Your task to perform on an android device: Open display settings Image 0: 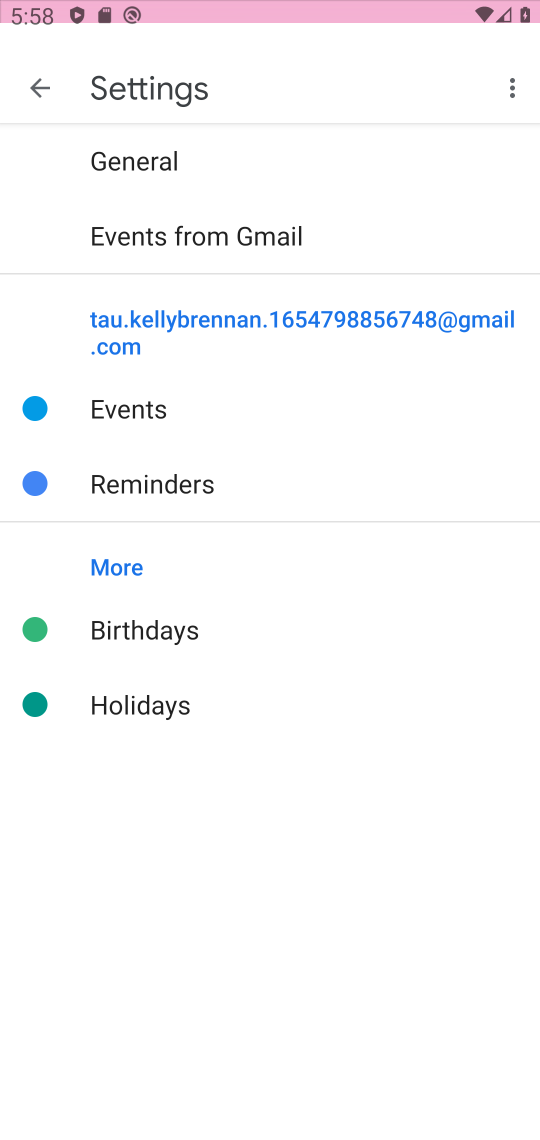
Step 0: drag from (292, 155) to (159, 111)
Your task to perform on an android device: Open display settings Image 1: 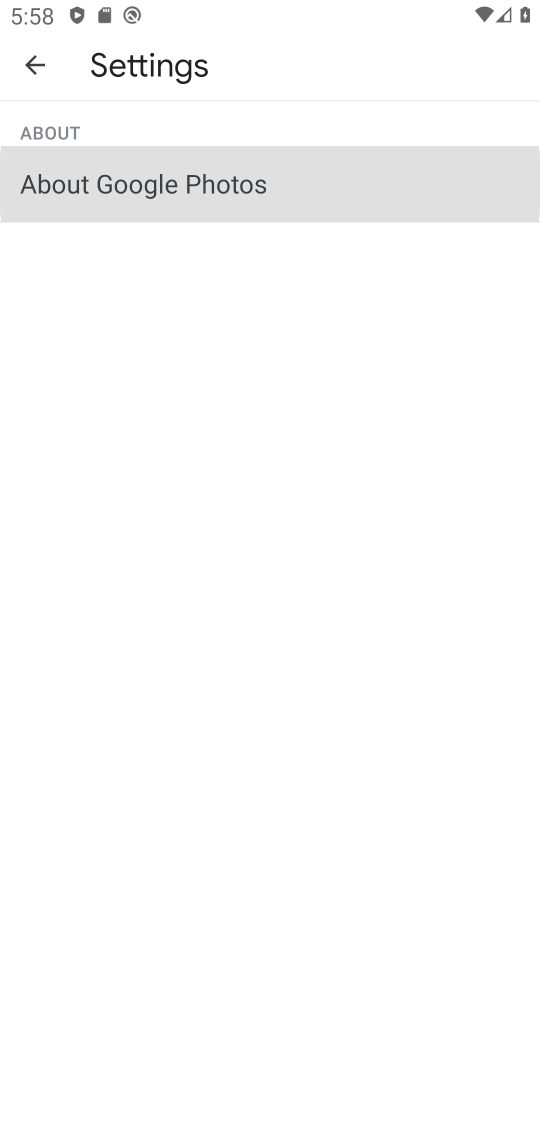
Step 1: drag from (293, 710) to (193, 92)
Your task to perform on an android device: Open display settings Image 2: 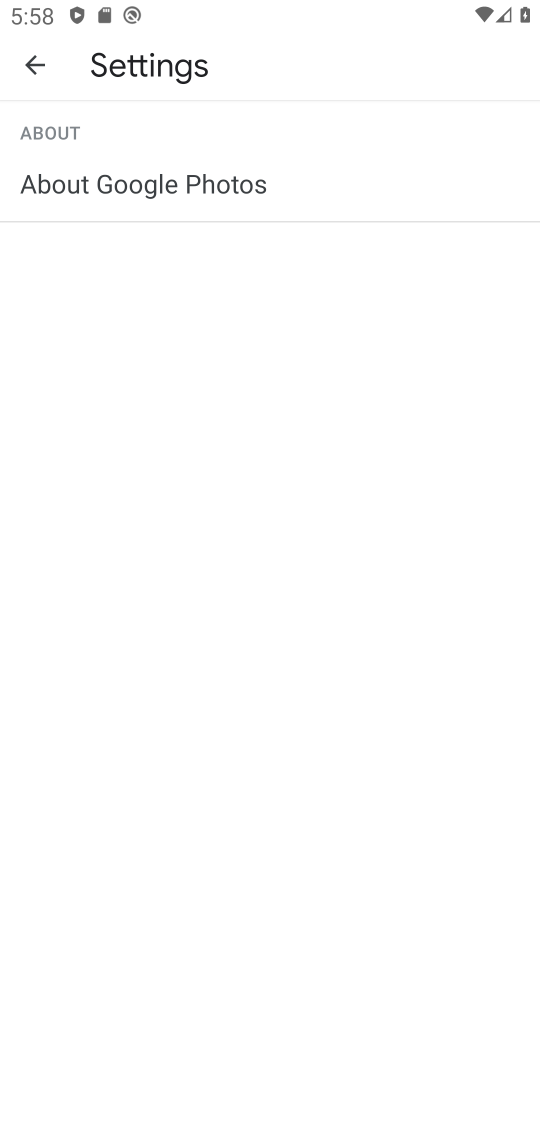
Step 2: click (36, 64)
Your task to perform on an android device: Open display settings Image 3: 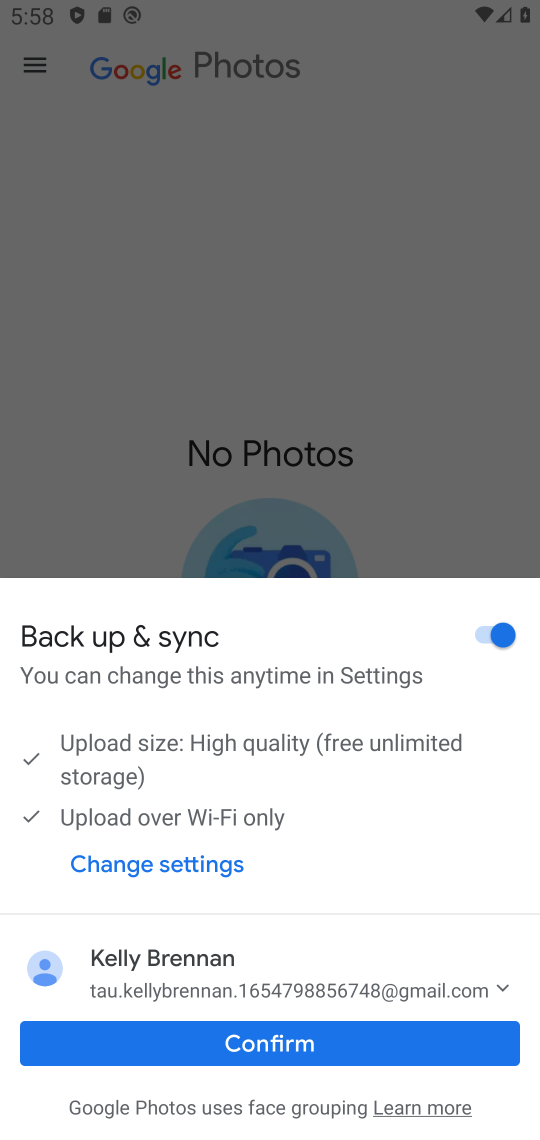
Step 3: click (331, 353)
Your task to perform on an android device: Open display settings Image 4: 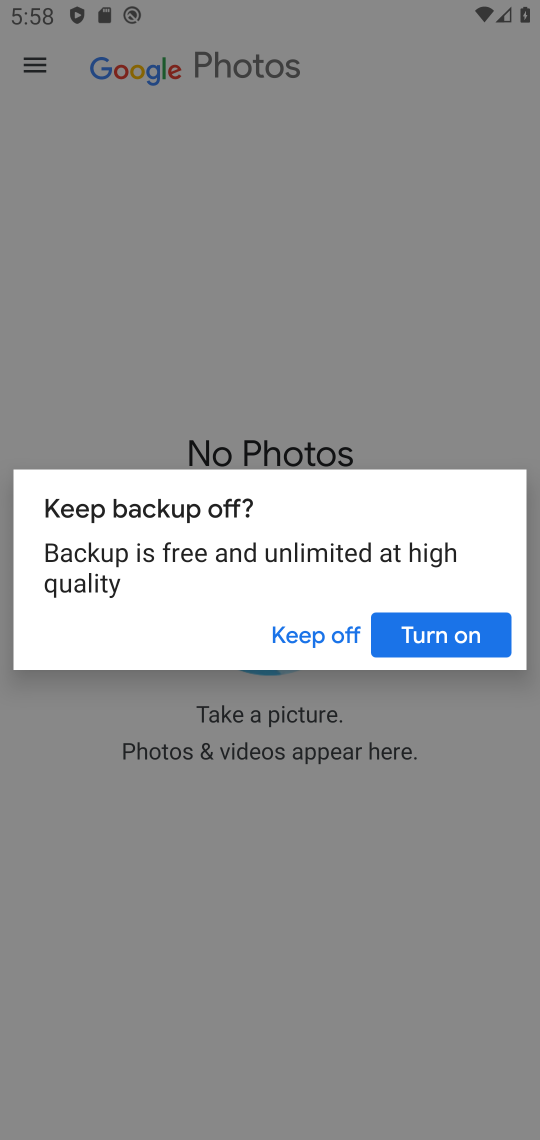
Step 4: click (315, 1039)
Your task to perform on an android device: Open display settings Image 5: 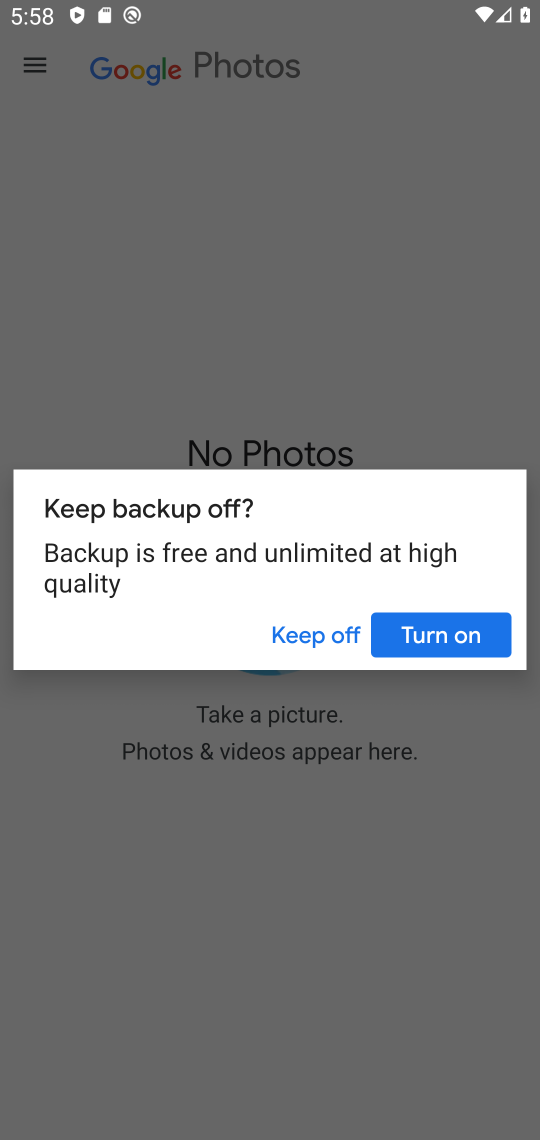
Step 5: click (329, 647)
Your task to perform on an android device: Open display settings Image 6: 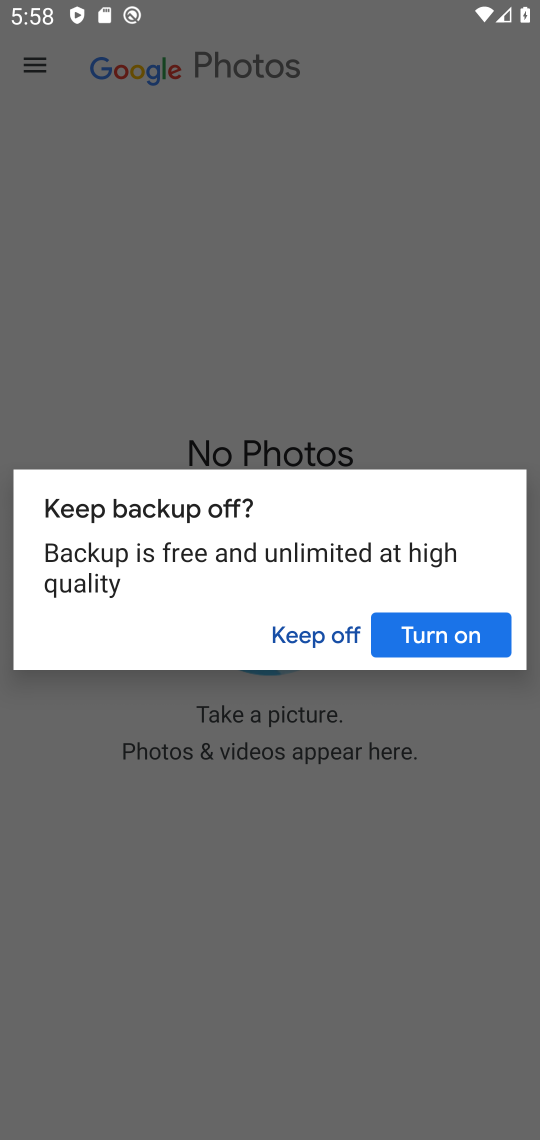
Step 6: click (329, 647)
Your task to perform on an android device: Open display settings Image 7: 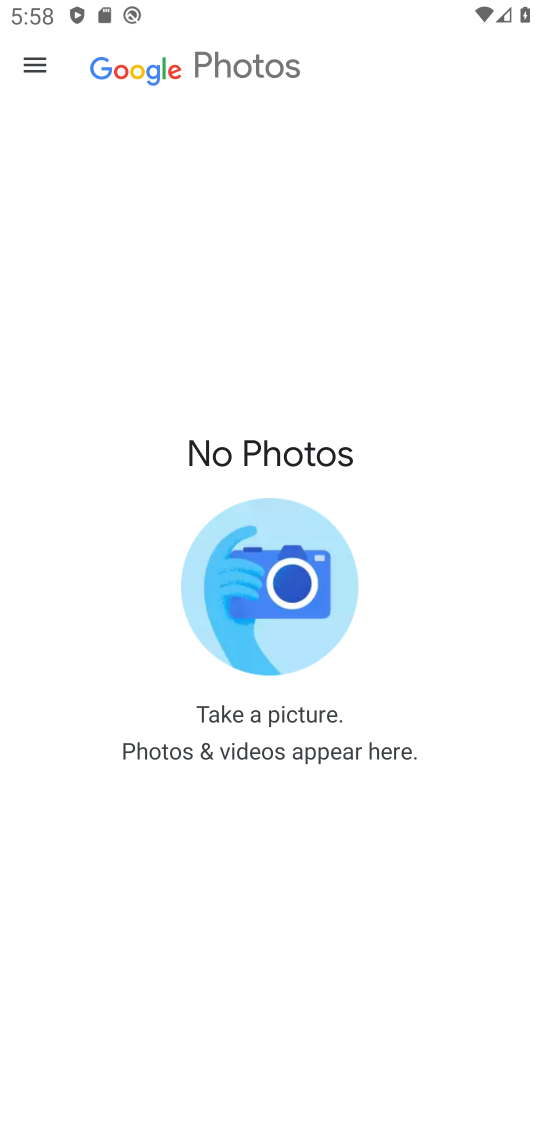
Step 7: press back button
Your task to perform on an android device: Open display settings Image 8: 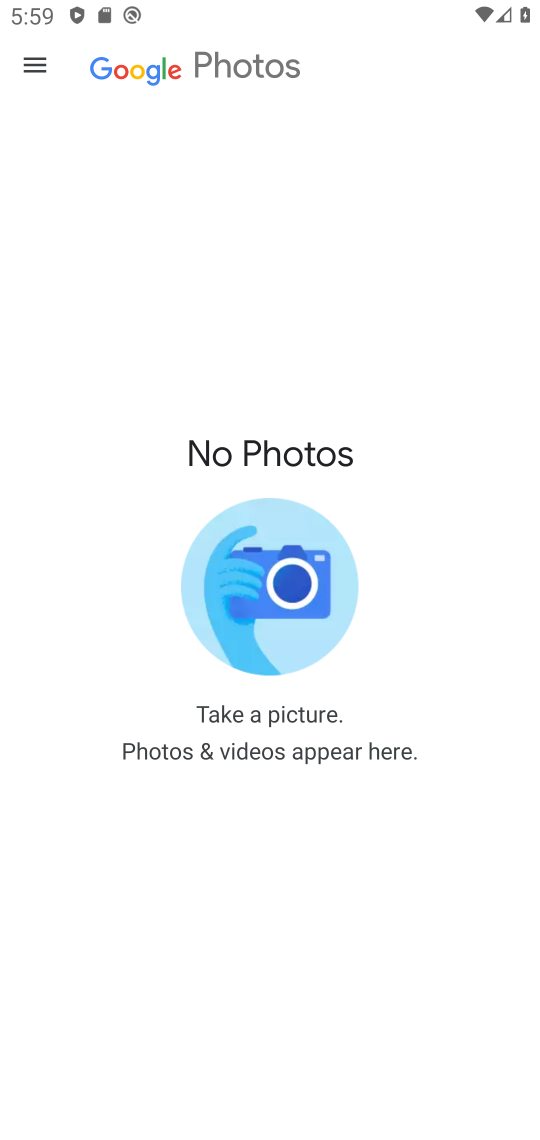
Step 8: press back button
Your task to perform on an android device: Open display settings Image 9: 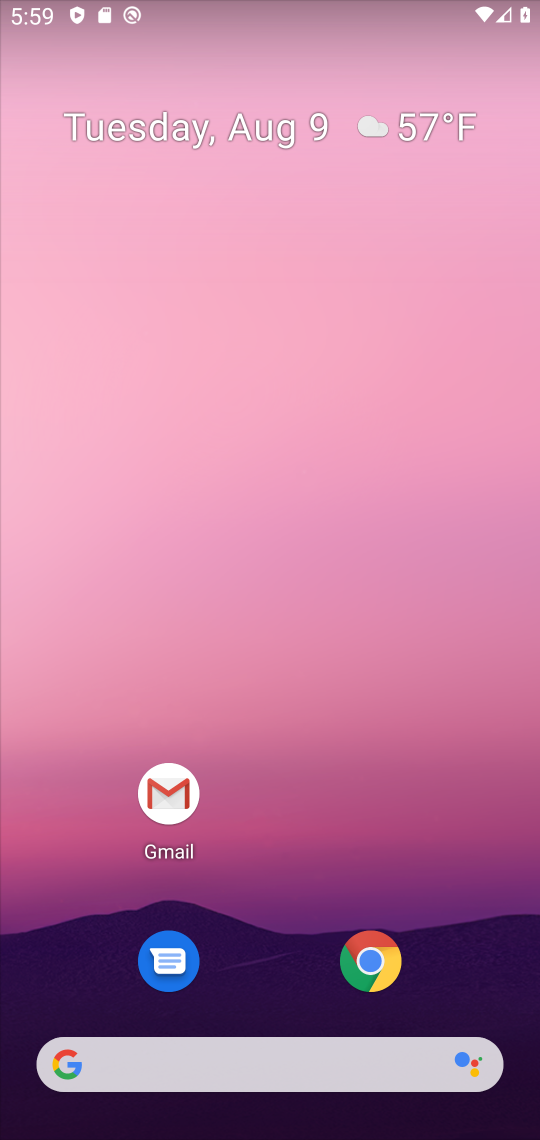
Step 9: press home button
Your task to perform on an android device: Open display settings Image 10: 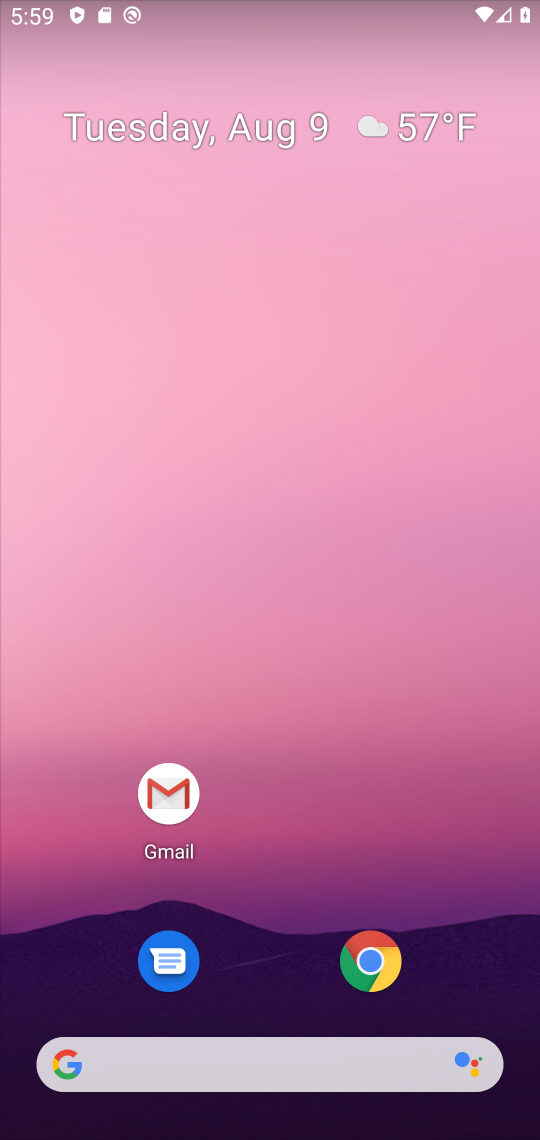
Step 10: drag from (241, 527) to (258, 218)
Your task to perform on an android device: Open display settings Image 11: 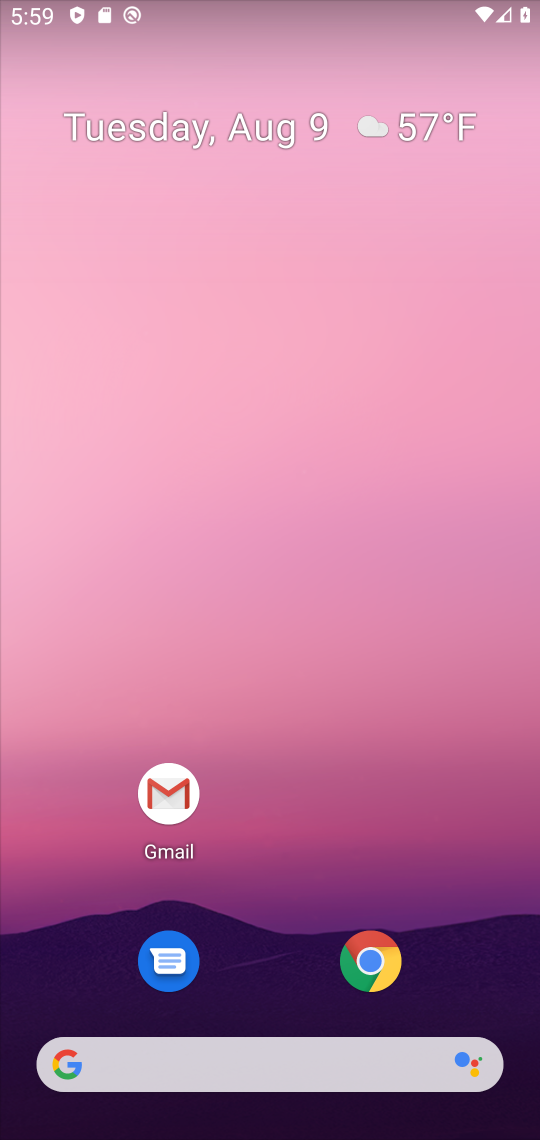
Step 11: drag from (242, 685) to (227, 266)
Your task to perform on an android device: Open display settings Image 12: 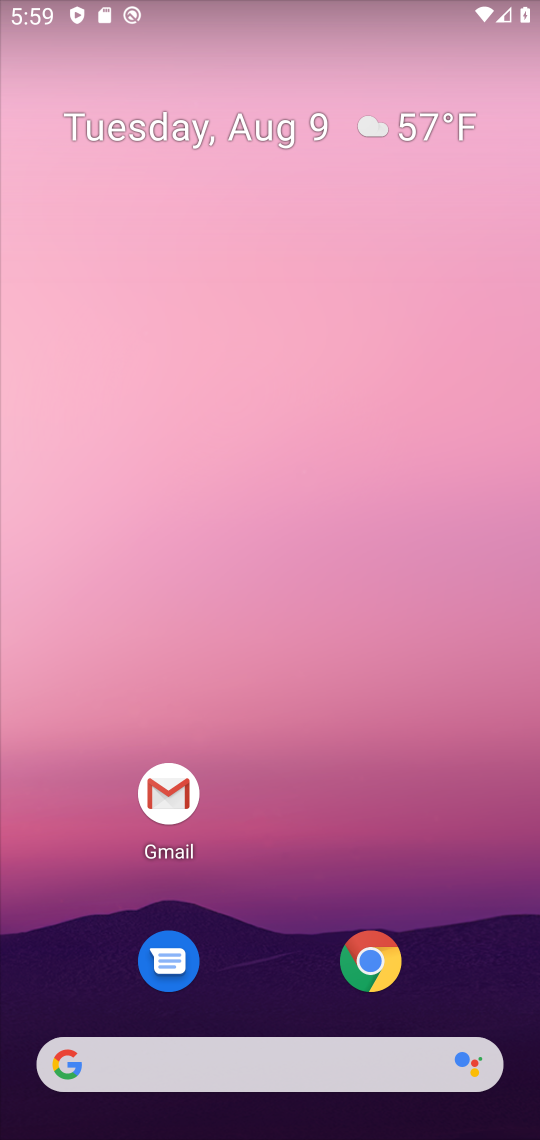
Step 12: drag from (219, 449) to (216, 109)
Your task to perform on an android device: Open display settings Image 13: 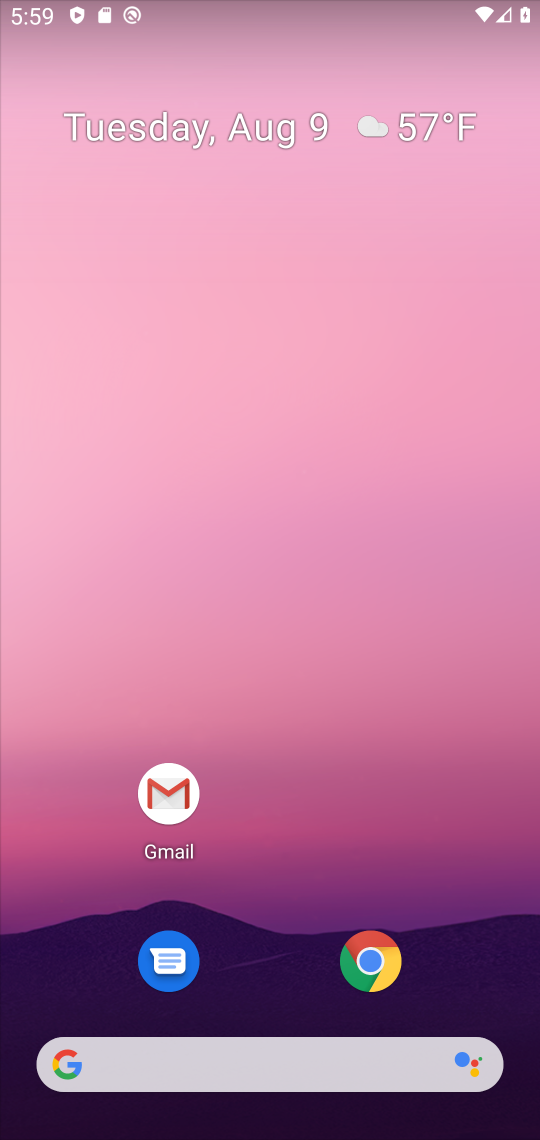
Step 13: drag from (270, 632) to (252, 350)
Your task to perform on an android device: Open display settings Image 14: 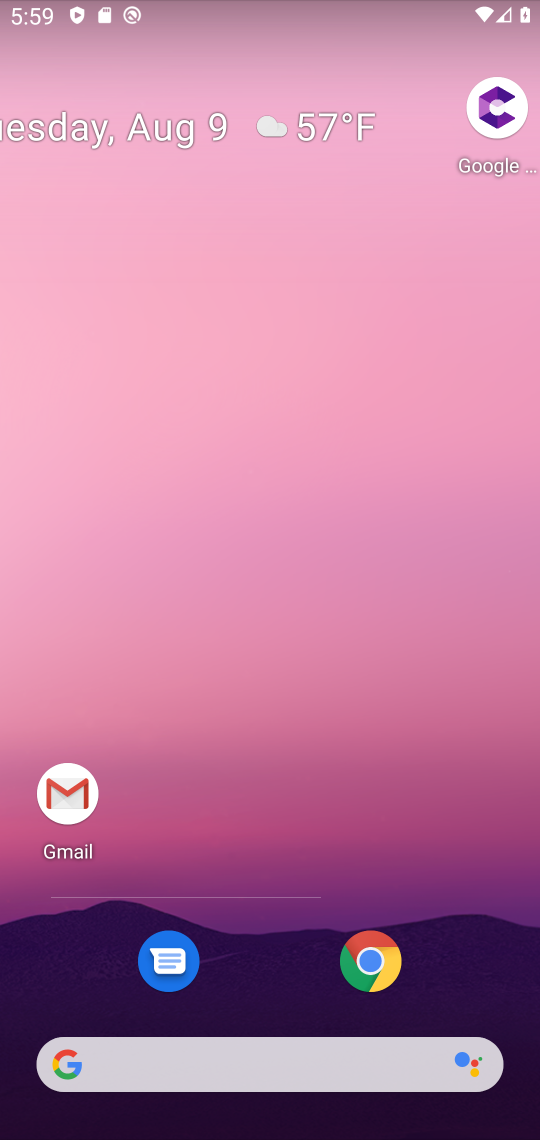
Step 14: drag from (375, 224) to (155, 106)
Your task to perform on an android device: Open display settings Image 15: 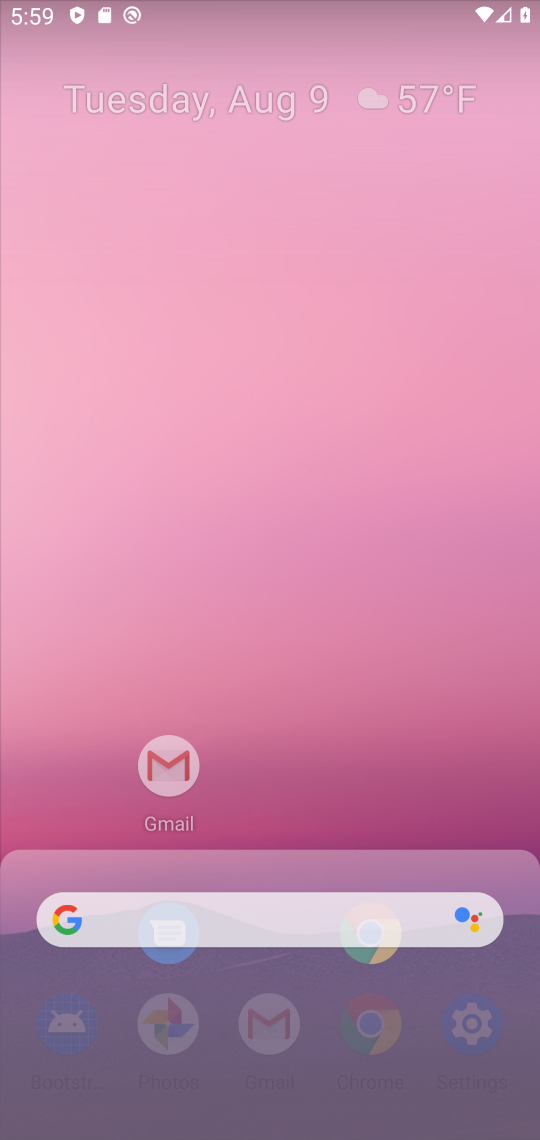
Step 15: drag from (280, 1108) to (323, 416)
Your task to perform on an android device: Open display settings Image 16: 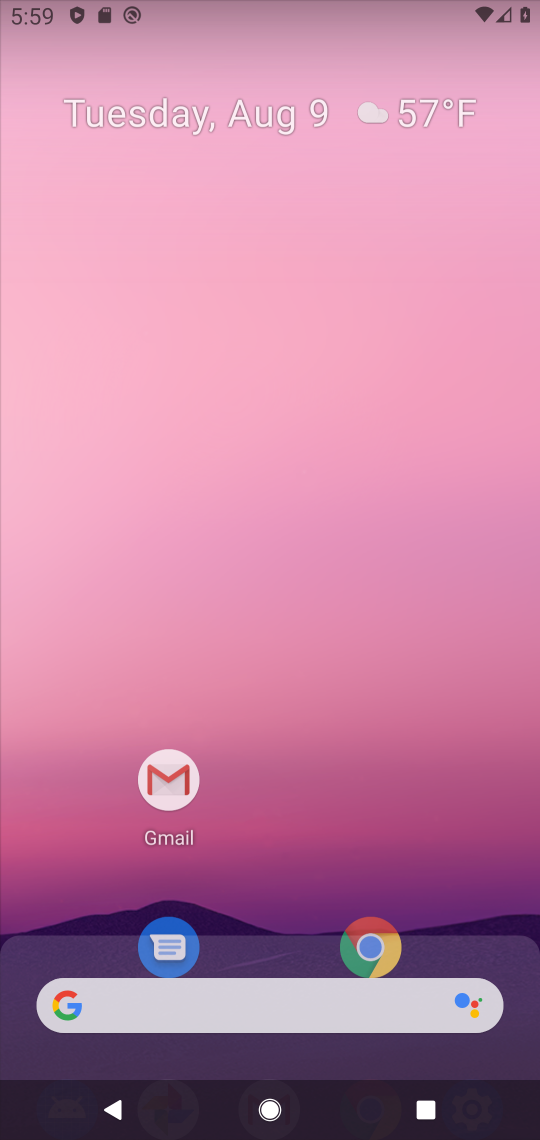
Step 16: drag from (333, 899) to (331, 240)
Your task to perform on an android device: Open display settings Image 17: 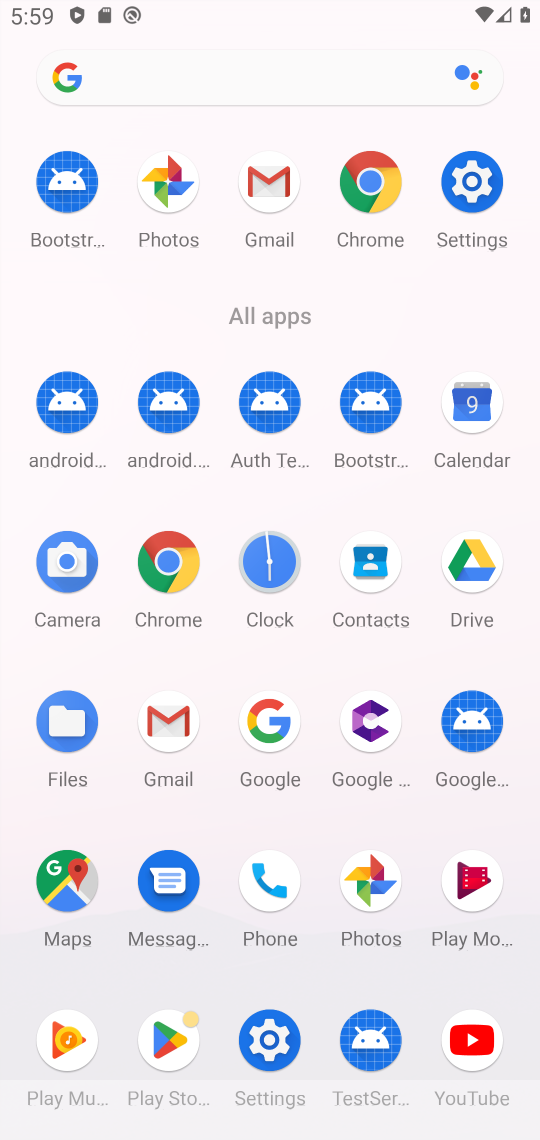
Step 17: click (471, 169)
Your task to perform on an android device: Open display settings Image 18: 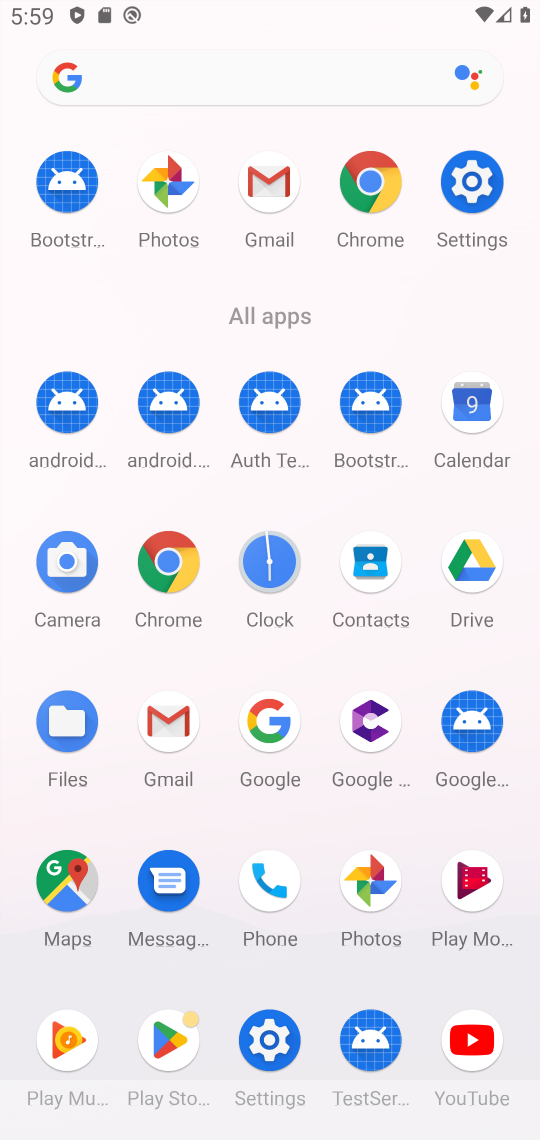
Step 18: click (469, 169)
Your task to perform on an android device: Open display settings Image 19: 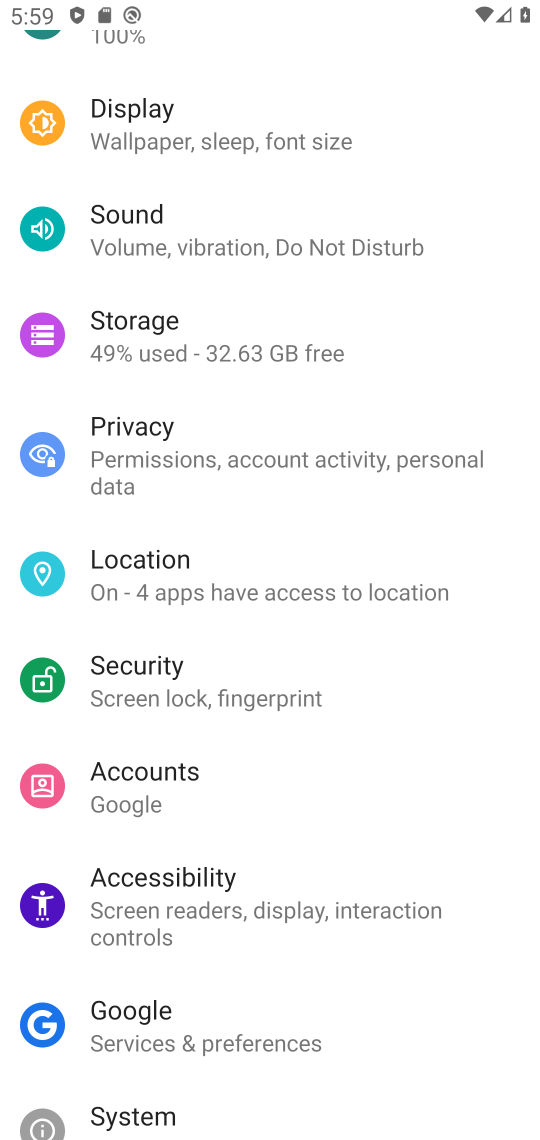
Step 19: click (172, 142)
Your task to perform on an android device: Open display settings Image 20: 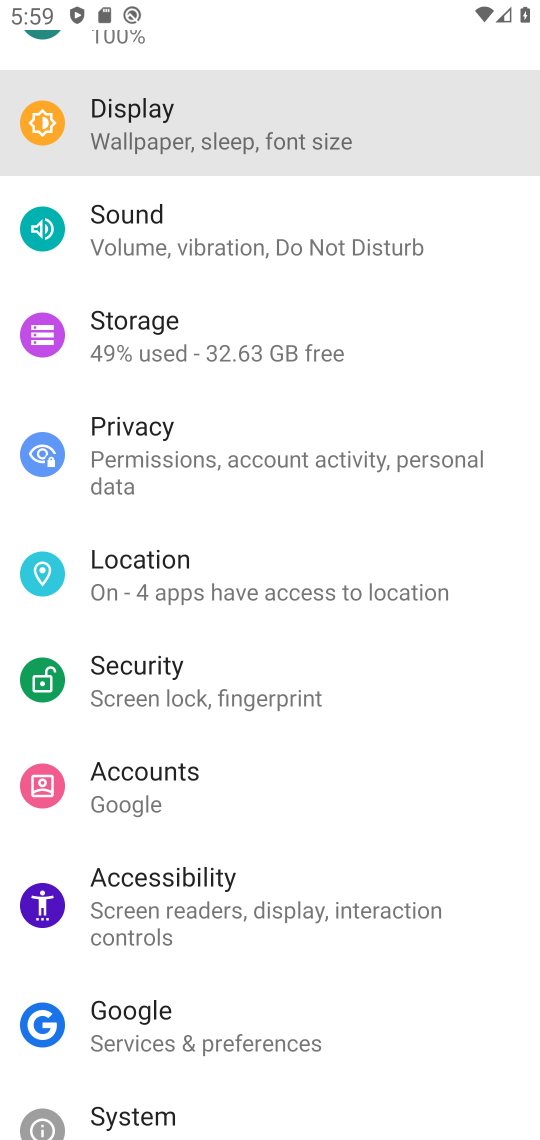
Step 20: click (105, 173)
Your task to perform on an android device: Open display settings Image 21: 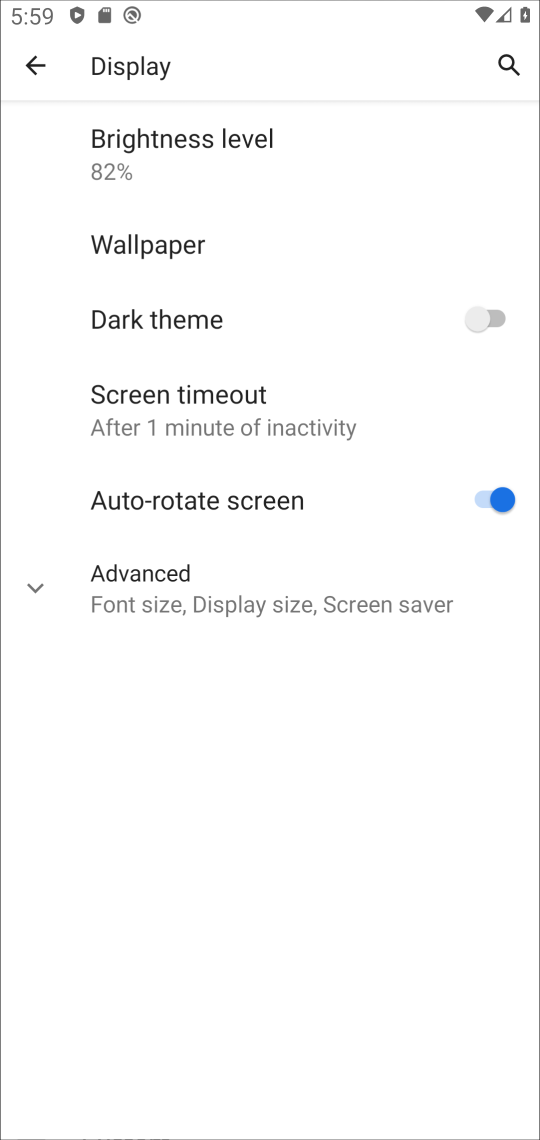
Step 21: click (102, 182)
Your task to perform on an android device: Open display settings Image 22: 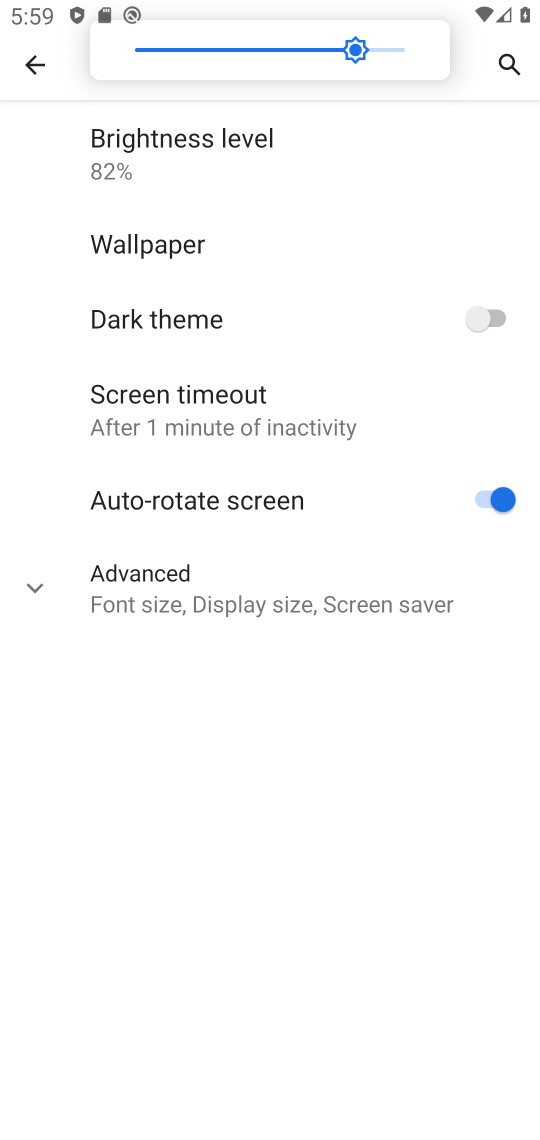
Step 22: task complete